Your task to perform on an android device: Open Chrome and go to the settings page Image 0: 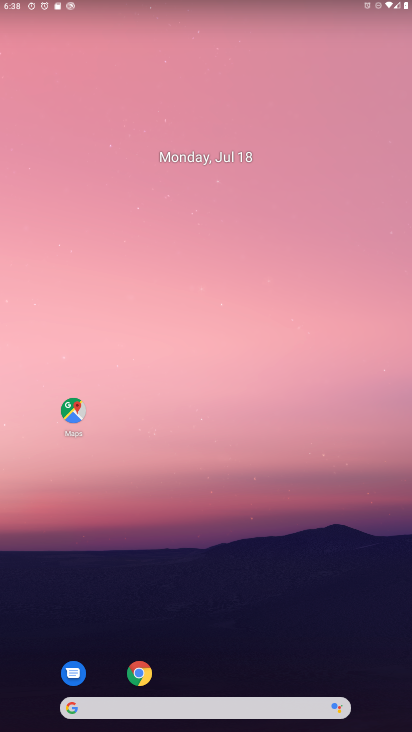
Step 0: drag from (248, 552) to (238, 182)
Your task to perform on an android device: Open Chrome and go to the settings page Image 1: 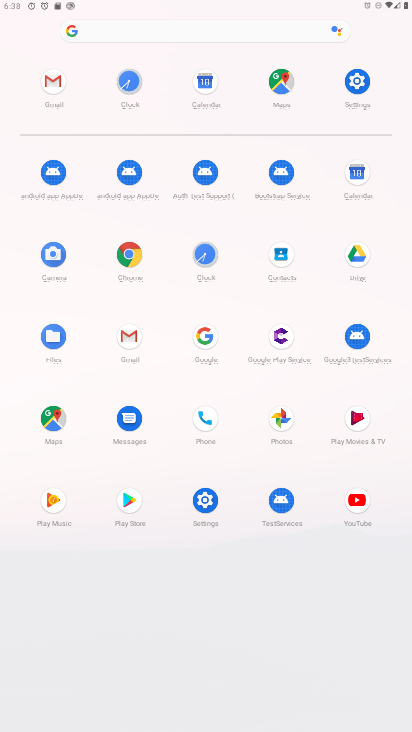
Step 1: click (207, 495)
Your task to perform on an android device: Open Chrome and go to the settings page Image 2: 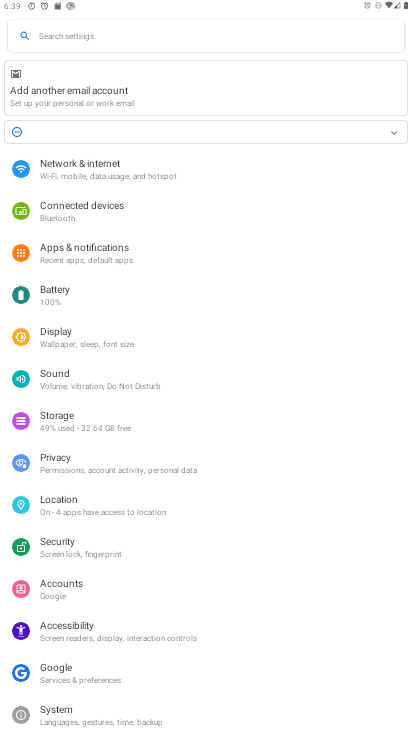
Step 2: press home button
Your task to perform on an android device: Open Chrome and go to the settings page Image 3: 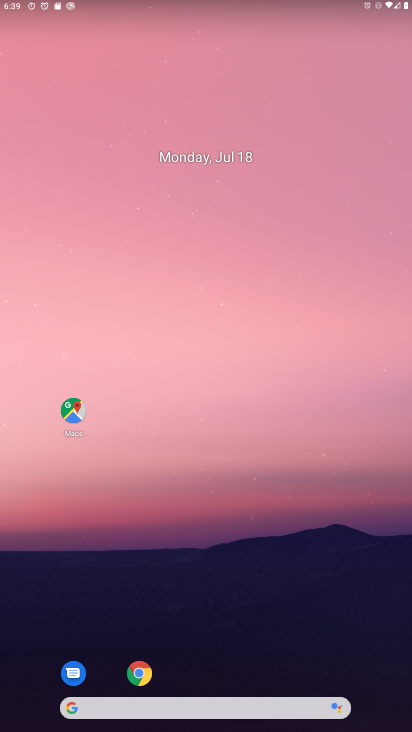
Step 3: click (137, 671)
Your task to perform on an android device: Open Chrome and go to the settings page Image 4: 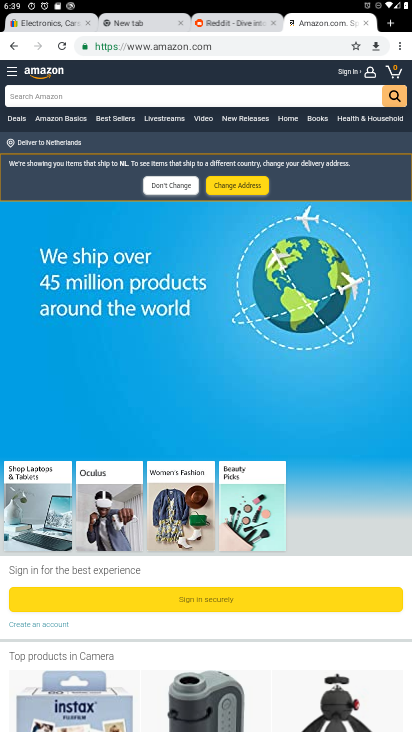
Step 4: click (400, 48)
Your task to perform on an android device: Open Chrome and go to the settings page Image 5: 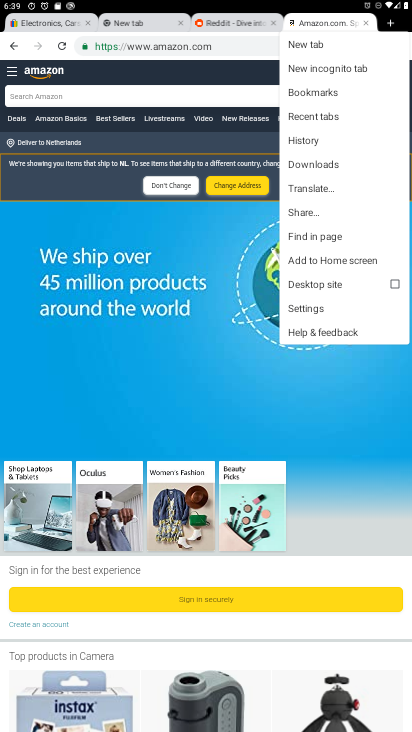
Step 5: click (304, 313)
Your task to perform on an android device: Open Chrome and go to the settings page Image 6: 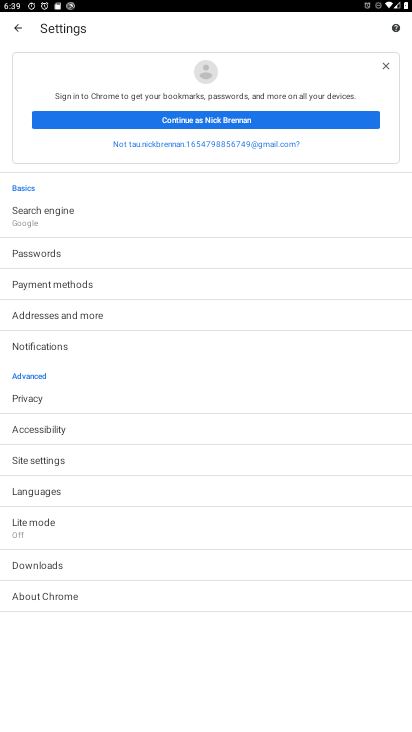
Step 6: task complete